Your task to perform on an android device: Open Google Chrome Image 0: 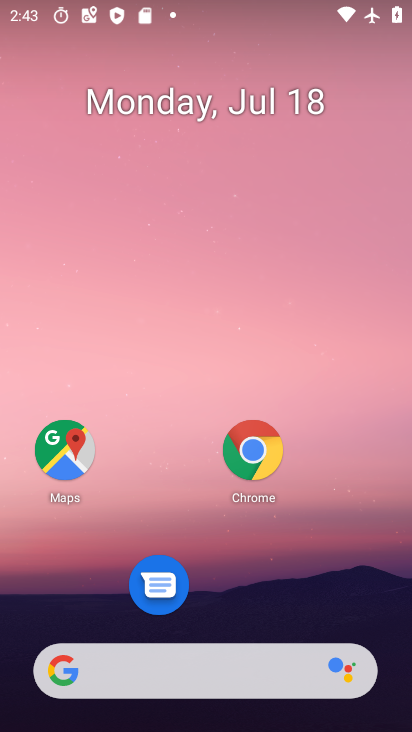
Step 0: click (254, 459)
Your task to perform on an android device: Open Google Chrome Image 1: 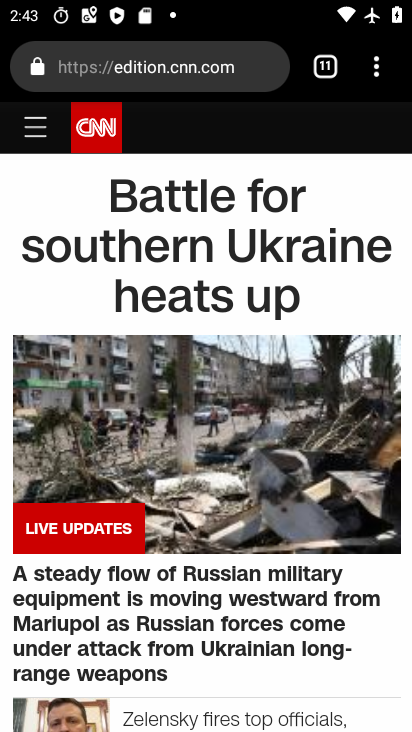
Step 1: task complete